Your task to perform on an android device: Open location settings Image 0: 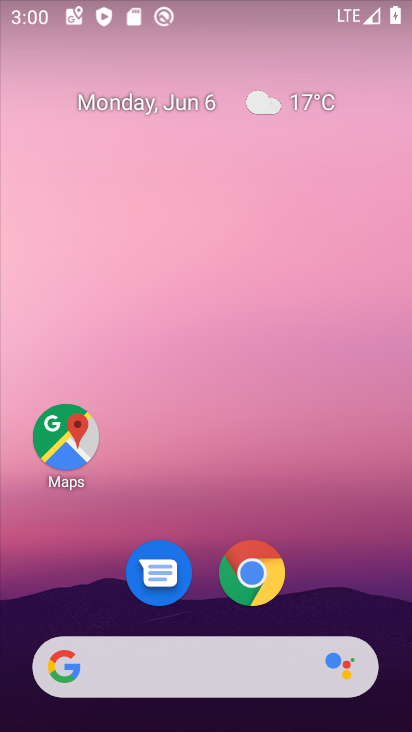
Step 0: drag from (371, 601) to (369, 256)
Your task to perform on an android device: Open location settings Image 1: 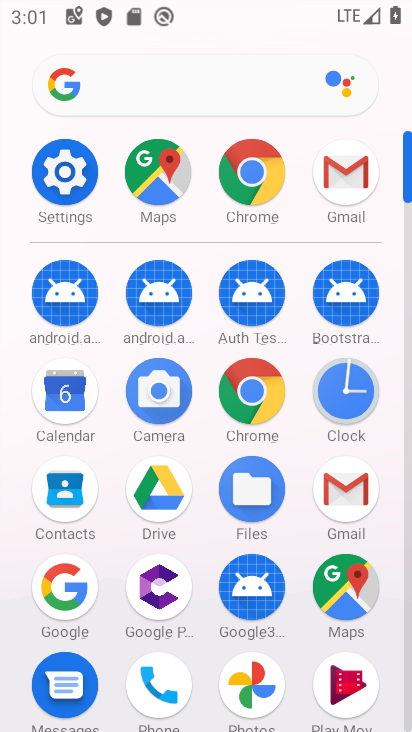
Step 1: click (64, 175)
Your task to perform on an android device: Open location settings Image 2: 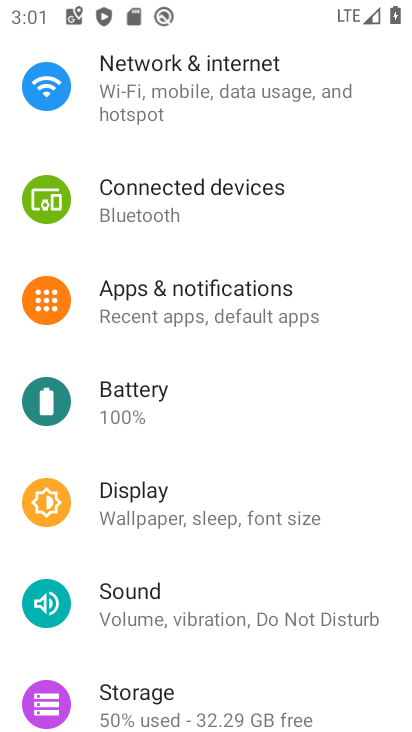
Step 2: drag from (366, 248) to (369, 458)
Your task to perform on an android device: Open location settings Image 3: 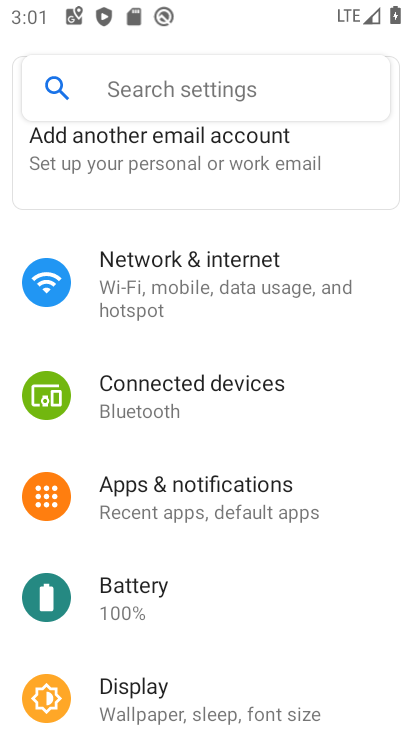
Step 3: drag from (358, 249) to (351, 475)
Your task to perform on an android device: Open location settings Image 4: 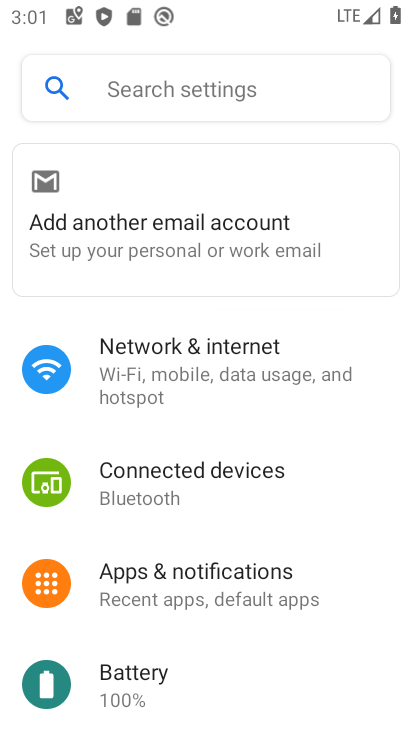
Step 4: drag from (350, 501) to (349, 384)
Your task to perform on an android device: Open location settings Image 5: 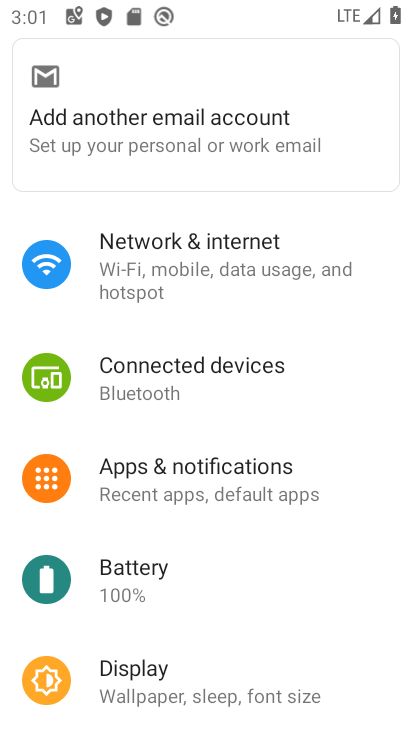
Step 5: drag from (357, 510) to (350, 378)
Your task to perform on an android device: Open location settings Image 6: 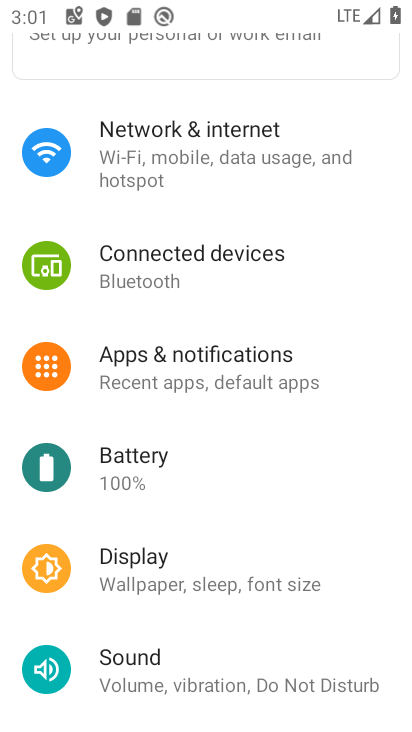
Step 6: drag from (339, 505) to (339, 358)
Your task to perform on an android device: Open location settings Image 7: 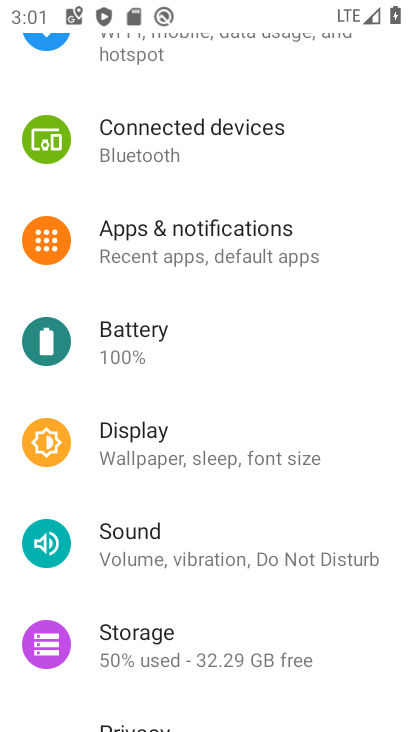
Step 7: drag from (348, 482) to (357, 372)
Your task to perform on an android device: Open location settings Image 8: 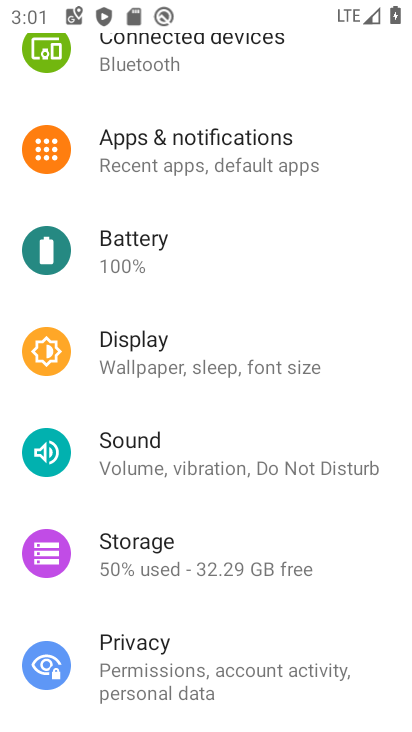
Step 8: drag from (357, 507) to (362, 385)
Your task to perform on an android device: Open location settings Image 9: 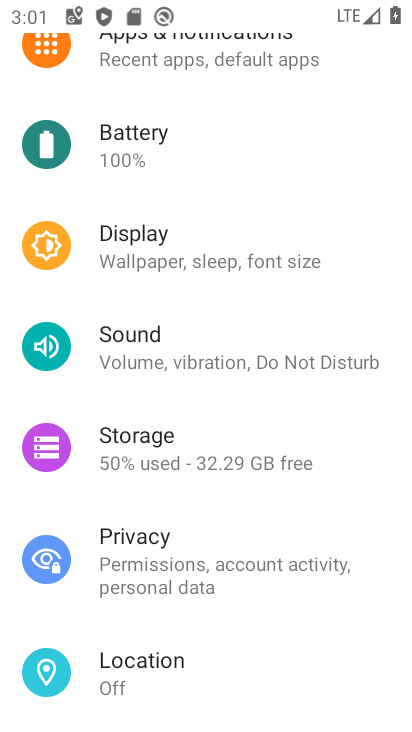
Step 9: drag from (361, 480) to (357, 342)
Your task to perform on an android device: Open location settings Image 10: 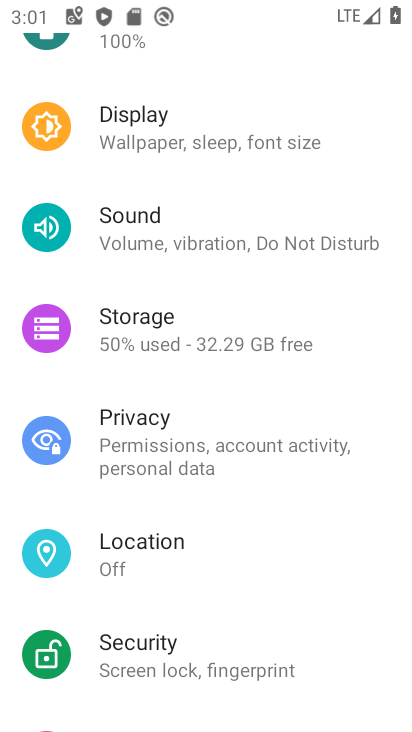
Step 10: drag from (331, 521) to (341, 379)
Your task to perform on an android device: Open location settings Image 11: 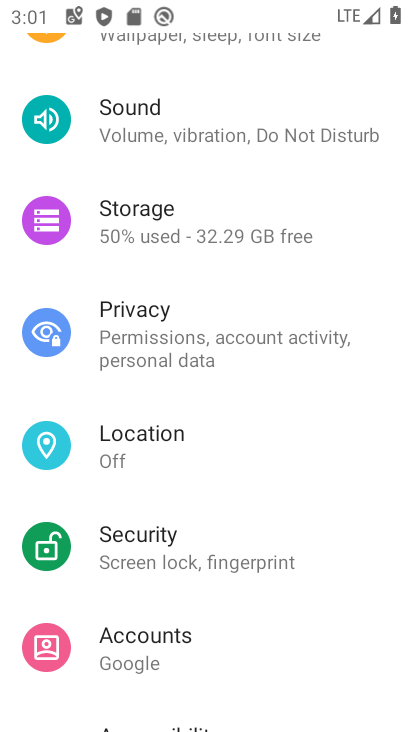
Step 11: click (207, 460)
Your task to perform on an android device: Open location settings Image 12: 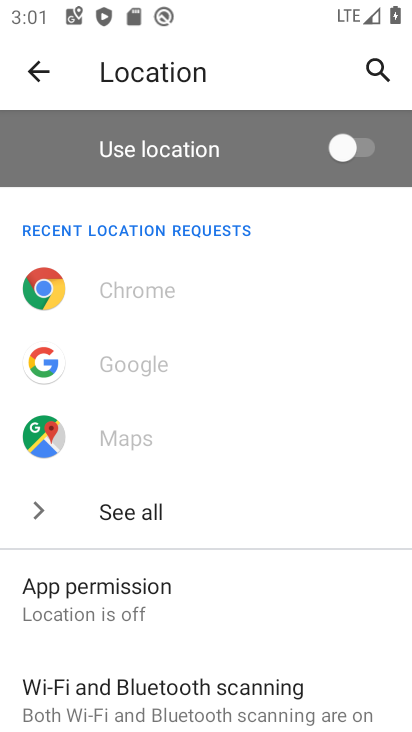
Step 12: task complete